Your task to perform on an android device: turn off javascript in the chrome app Image 0: 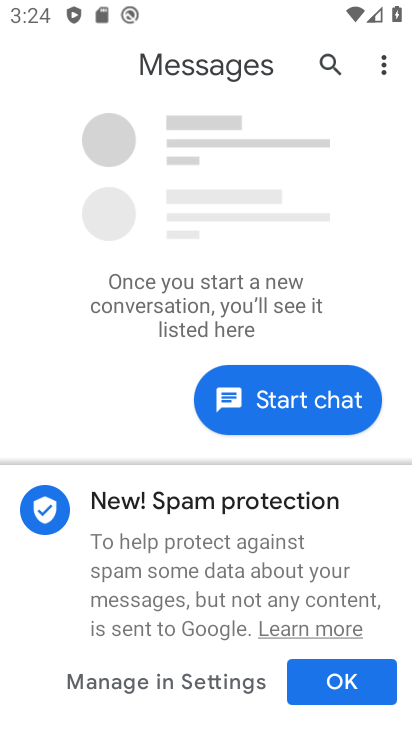
Step 0: press back button
Your task to perform on an android device: turn off javascript in the chrome app Image 1: 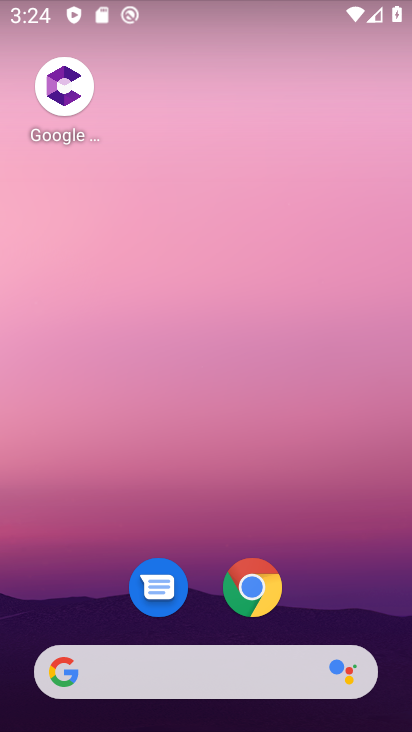
Step 1: drag from (314, 578) to (292, 26)
Your task to perform on an android device: turn off javascript in the chrome app Image 2: 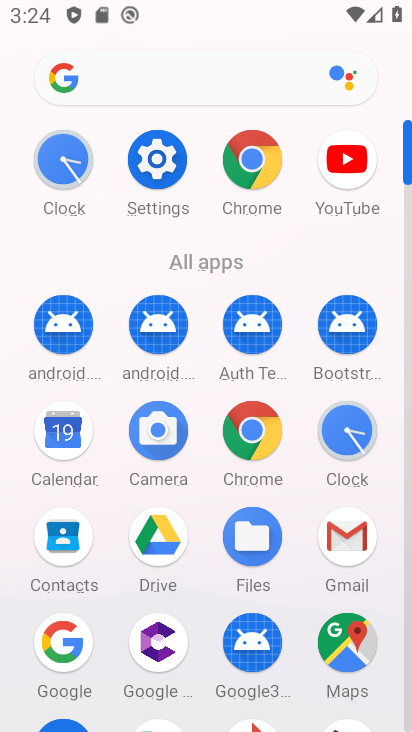
Step 2: drag from (13, 565) to (40, 245)
Your task to perform on an android device: turn off javascript in the chrome app Image 3: 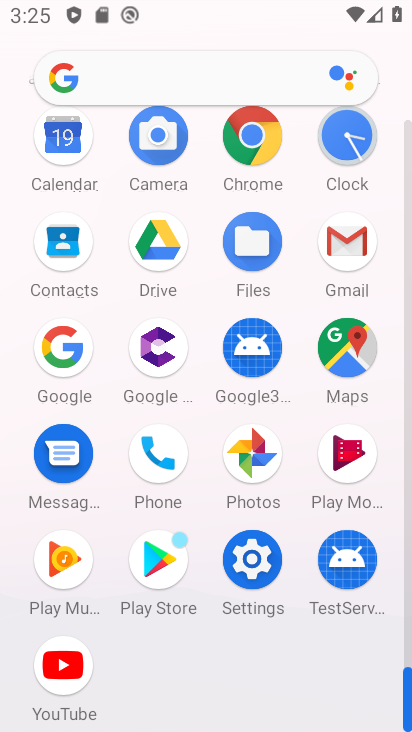
Step 3: click (258, 128)
Your task to perform on an android device: turn off javascript in the chrome app Image 4: 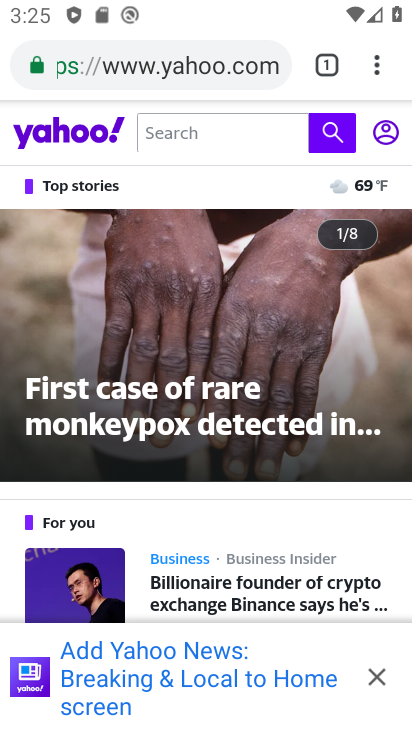
Step 4: drag from (371, 68) to (150, 629)
Your task to perform on an android device: turn off javascript in the chrome app Image 5: 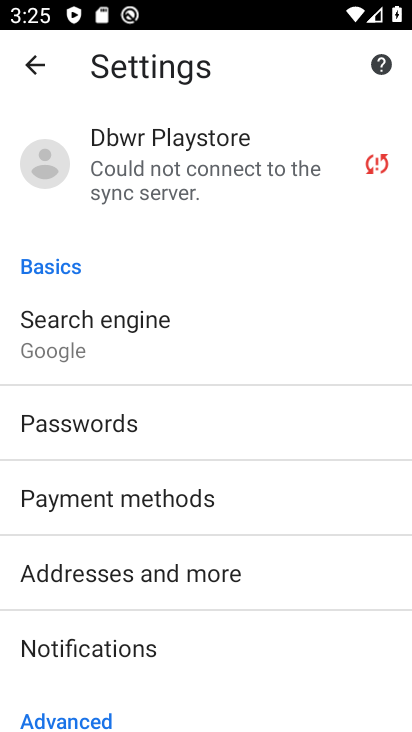
Step 5: drag from (199, 606) to (238, 213)
Your task to perform on an android device: turn off javascript in the chrome app Image 6: 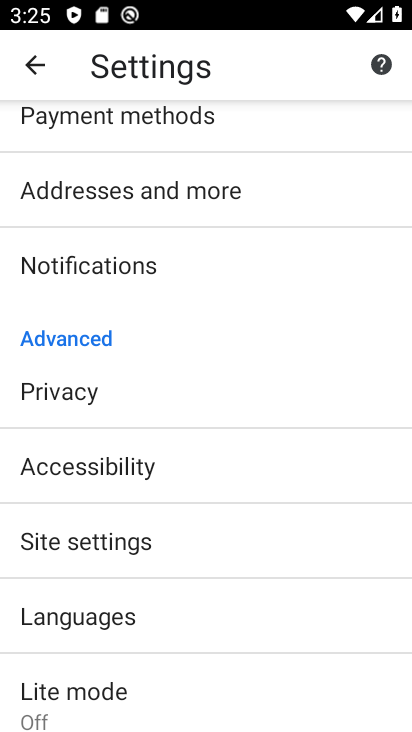
Step 6: click (139, 518)
Your task to perform on an android device: turn off javascript in the chrome app Image 7: 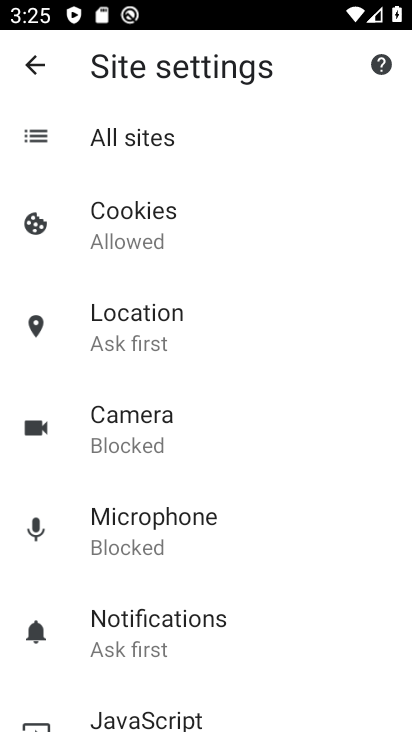
Step 7: click (189, 700)
Your task to perform on an android device: turn off javascript in the chrome app Image 8: 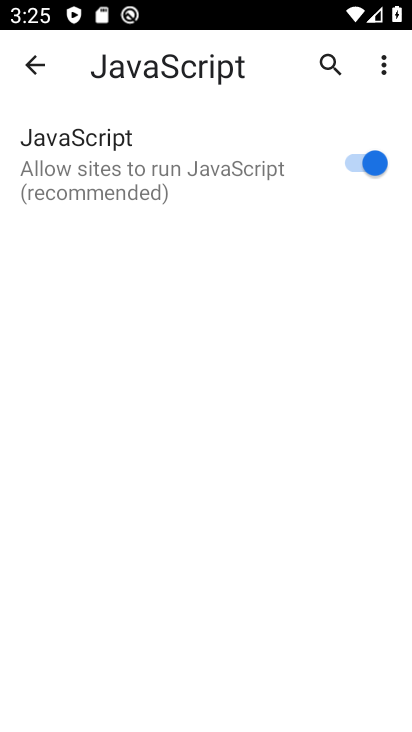
Step 8: click (354, 157)
Your task to perform on an android device: turn off javascript in the chrome app Image 9: 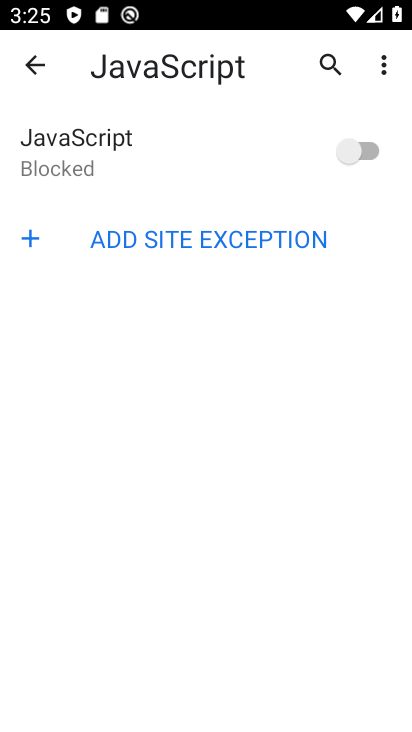
Step 9: task complete